Your task to perform on an android device: Show me productivity apps on the Play Store Image 0: 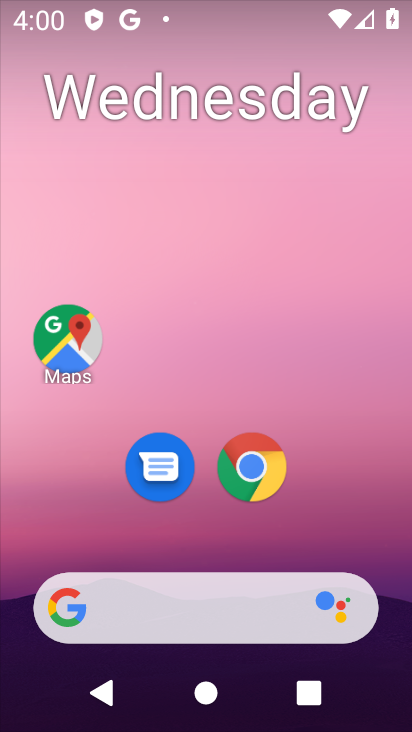
Step 0: drag from (213, 526) to (286, 38)
Your task to perform on an android device: Show me productivity apps on the Play Store Image 1: 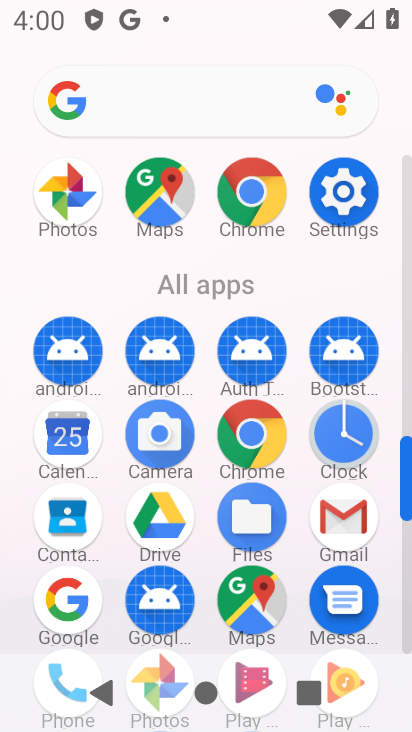
Step 1: drag from (198, 507) to (223, 250)
Your task to perform on an android device: Show me productivity apps on the Play Store Image 2: 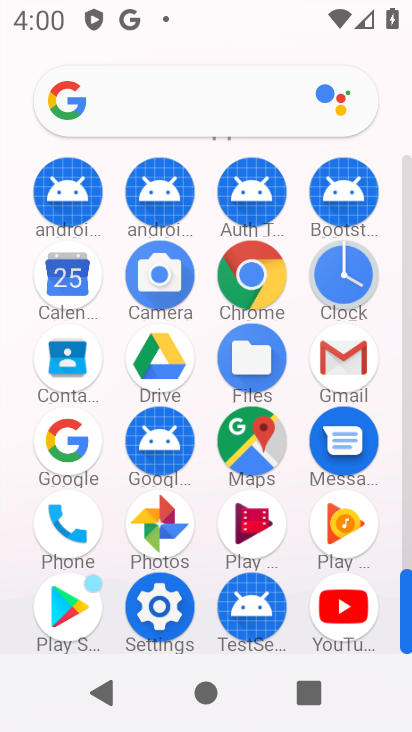
Step 2: click (78, 622)
Your task to perform on an android device: Show me productivity apps on the Play Store Image 3: 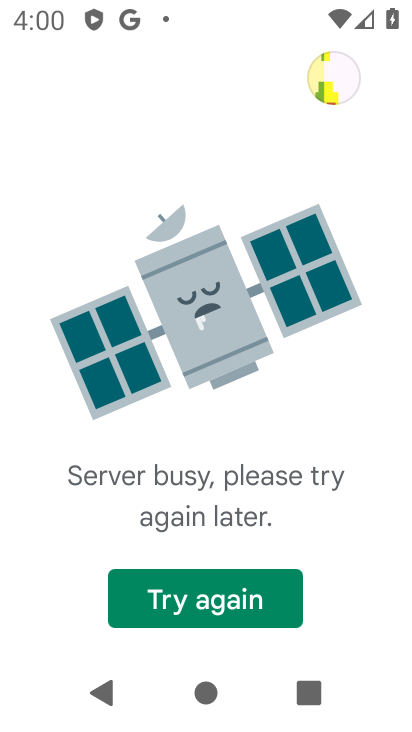
Step 3: click (176, 591)
Your task to perform on an android device: Show me productivity apps on the Play Store Image 4: 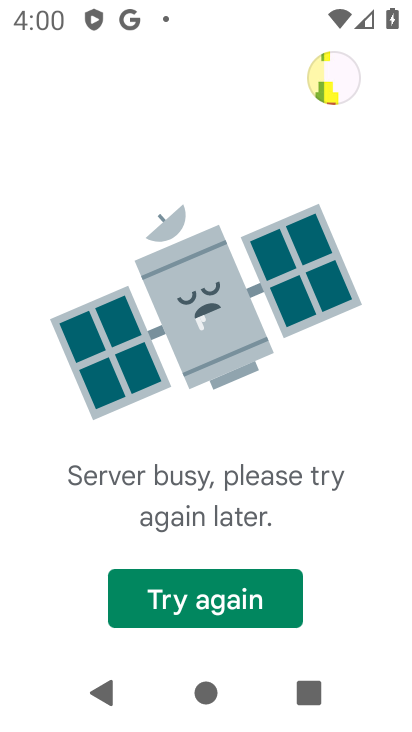
Step 4: click (182, 599)
Your task to perform on an android device: Show me productivity apps on the Play Store Image 5: 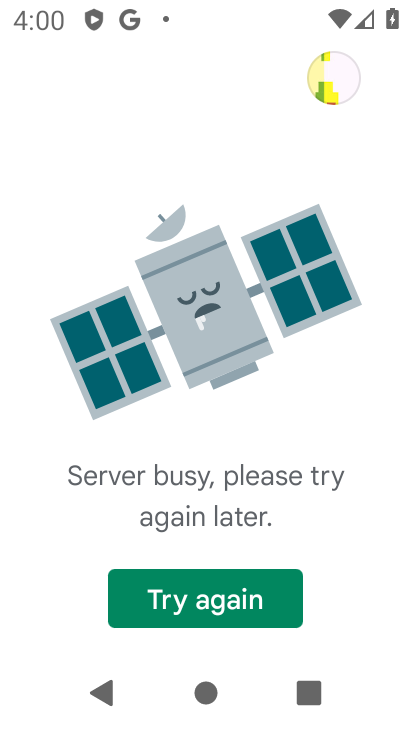
Step 5: task complete